Your task to perform on an android device: uninstall "Expedia: Hotels, Flights & Car" Image 0: 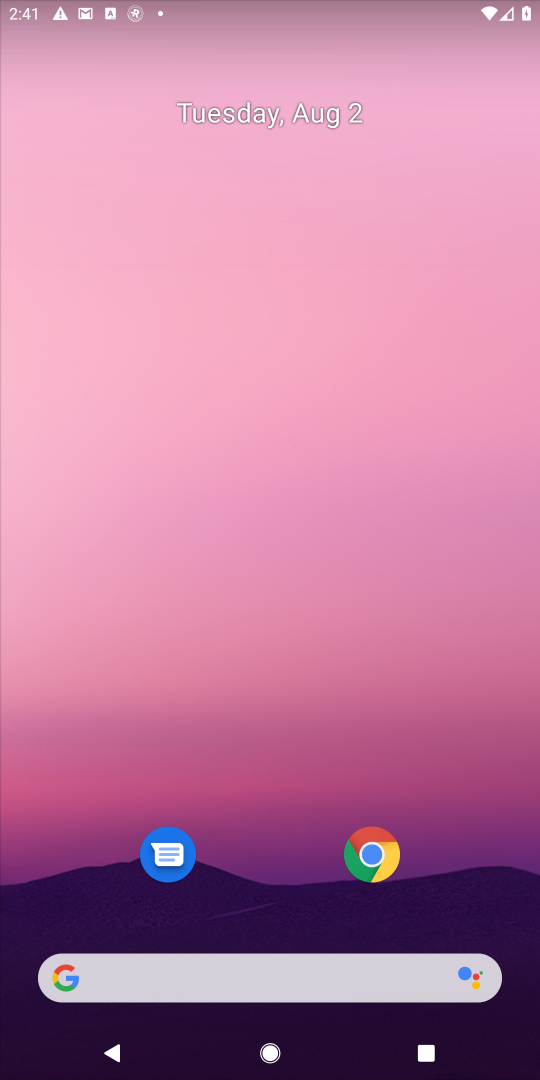
Step 0: drag from (298, 878) to (322, 4)
Your task to perform on an android device: uninstall "Expedia: Hotels, Flights & Car" Image 1: 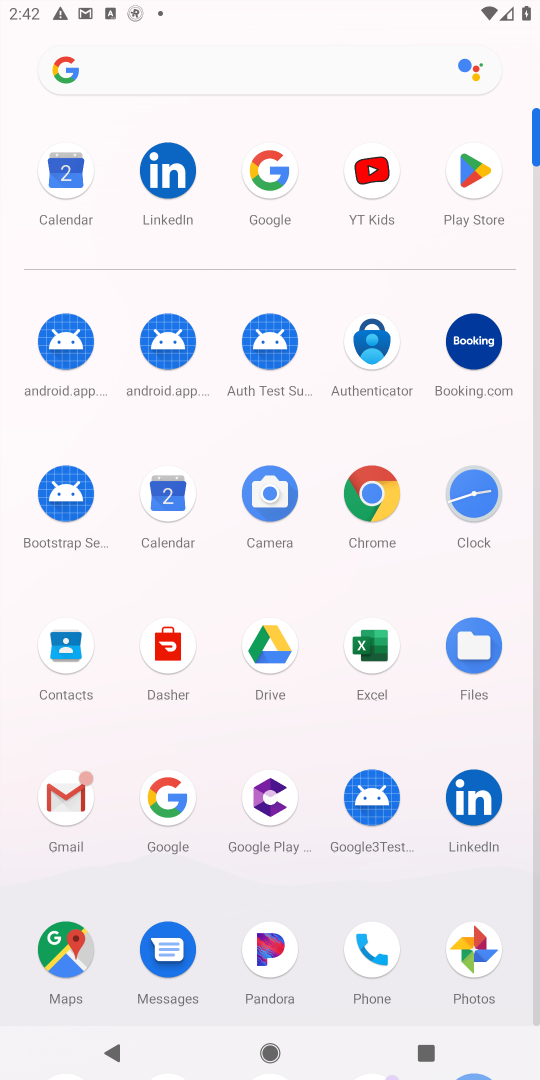
Step 1: click (471, 170)
Your task to perform on an android device: uninstall "Expedia: Hotels, Flights & Car" Image 2: 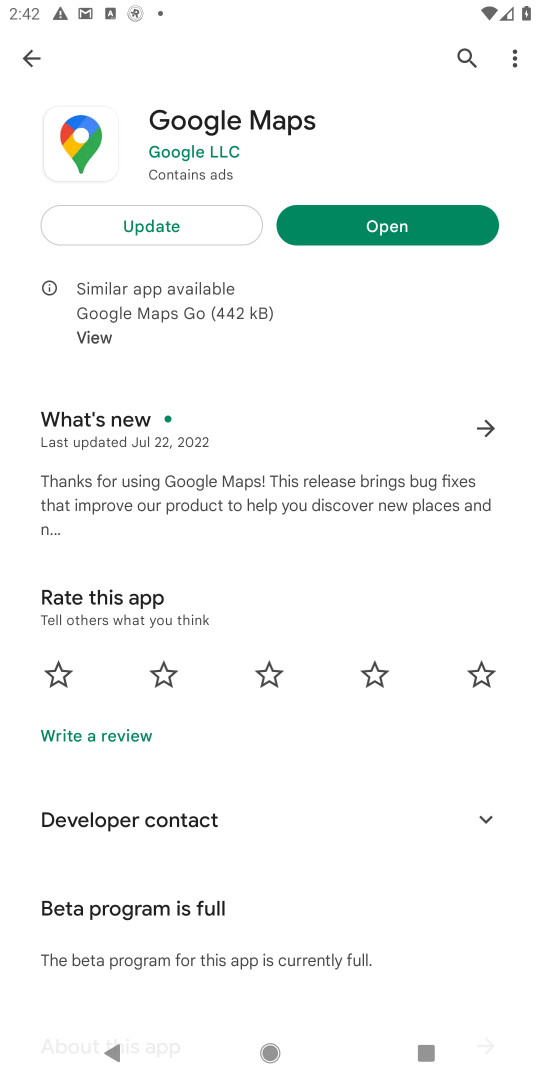
Step 2: click (460, 53)
Your task to perform on an android device: uninstall "Expedia: Hotels, Flights & Car" Image 3: 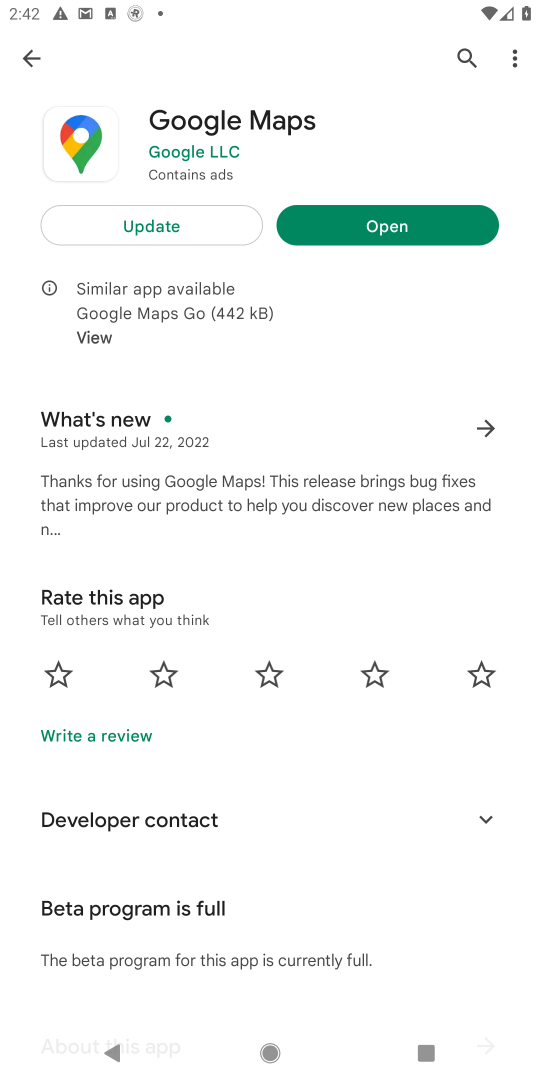
Step 3: click (462, 58)
Your task to perform on an android device: uninstall "Expedia: Hotels, Flights & Car" Image 4: 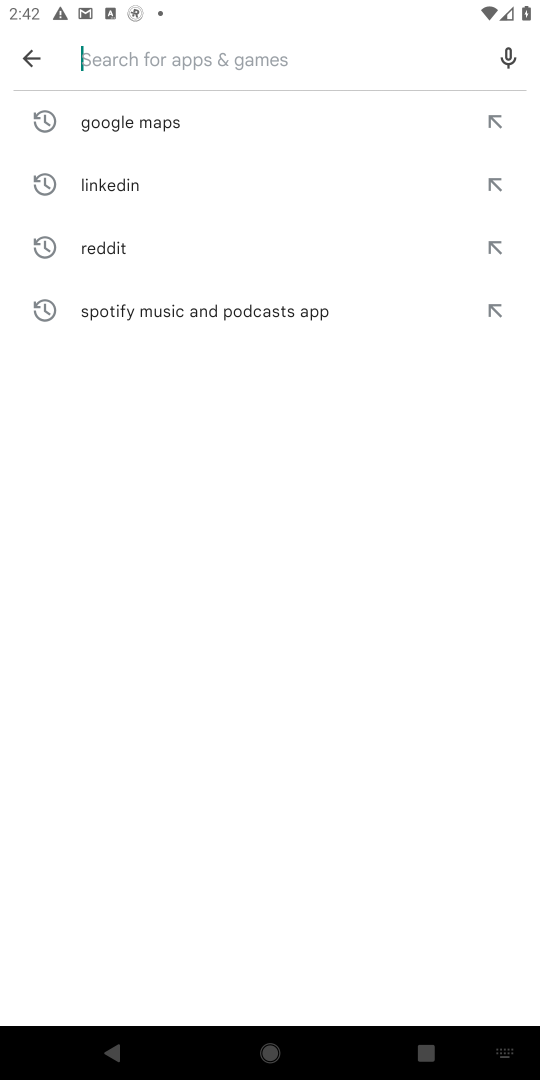
Step 4: type "Expedia: Hotels, Flights & Car"
Your task to perform on an android device: uninstall "Expedia: Hotels, Flights & Car" Image 5: 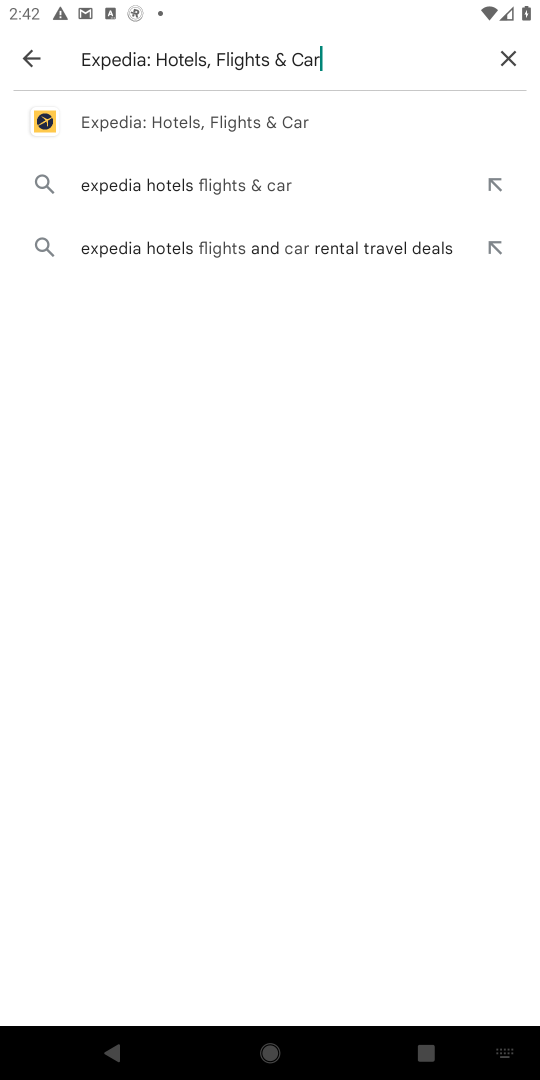
Step 5: click (227, 122)
Your task to perform on an android device: uninstall "Expedia: Hotels, Flights & Car" Image 6: 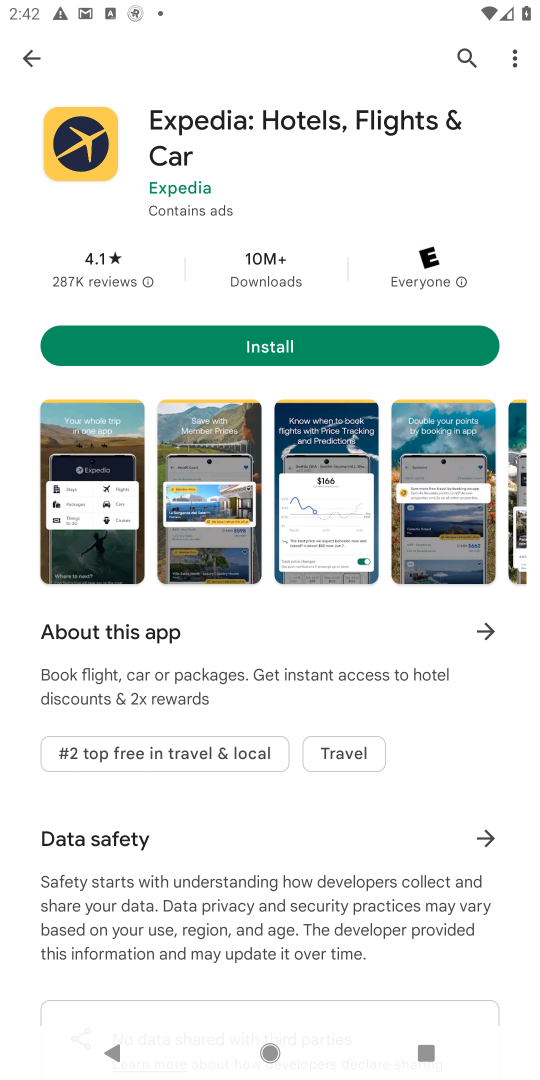
Step 6: task complete